Your task to perform on an android device: turn off picture-in-picture Image 0: 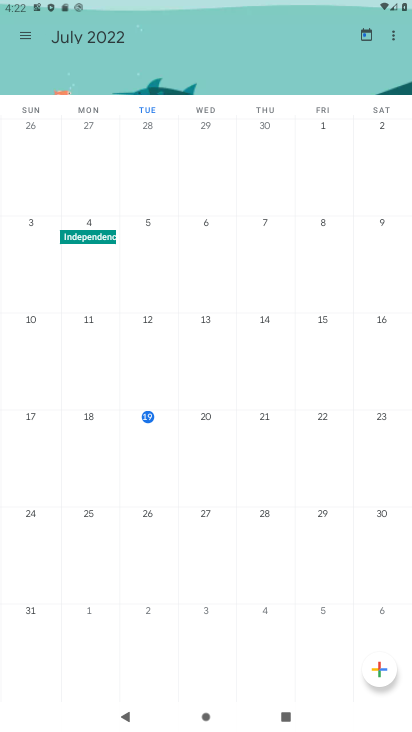
Step 0: press home button
Your task to perform on an android device: turn off picture-in-picture Image 1: 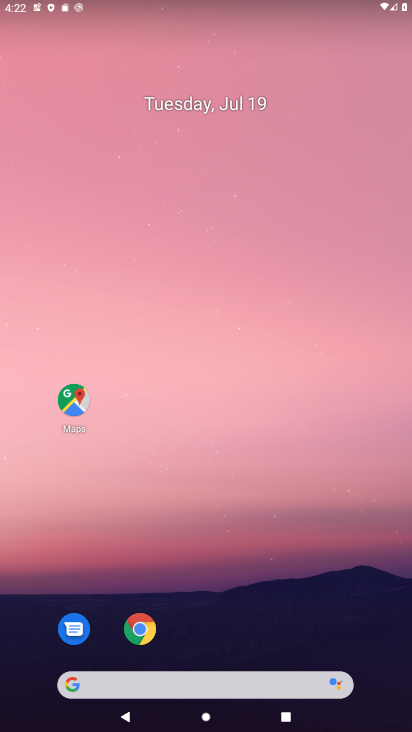
Step 1: click (136, 630)
Your task to perform on an android device: turn off picture-in-picture Image 2: 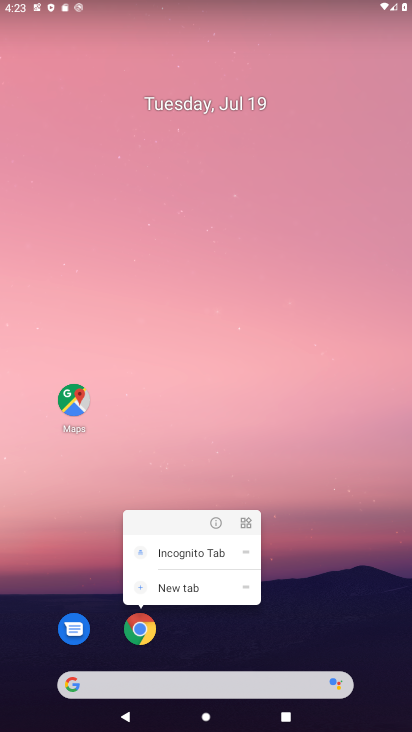
Step 2: click (223, 516)
Your task to perform on an android device: turn off picture-in-picture Image 3: 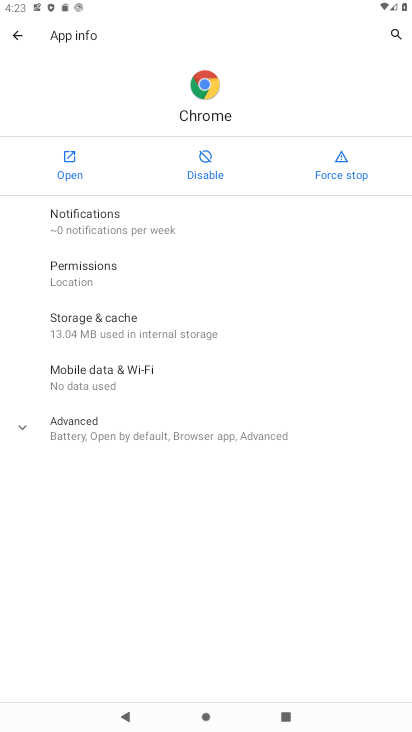
Step 3: click (86, 427)
Your task to perform on an android device: turn off picture-in-picture Image 4: 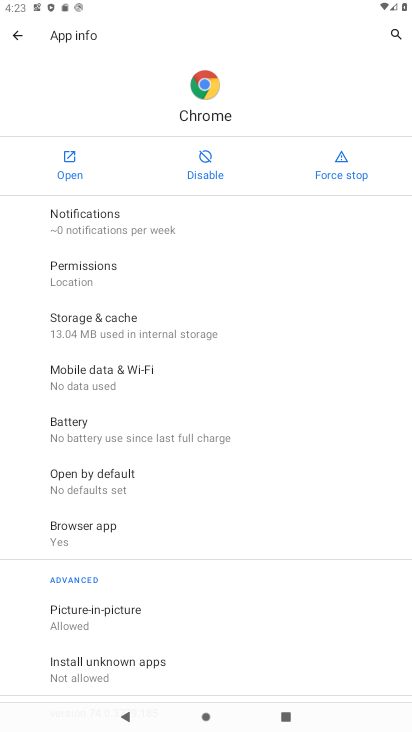
Step 4: click (84, 622)
Your task to perform on an android device: turn off picture-in-picture Image 5: 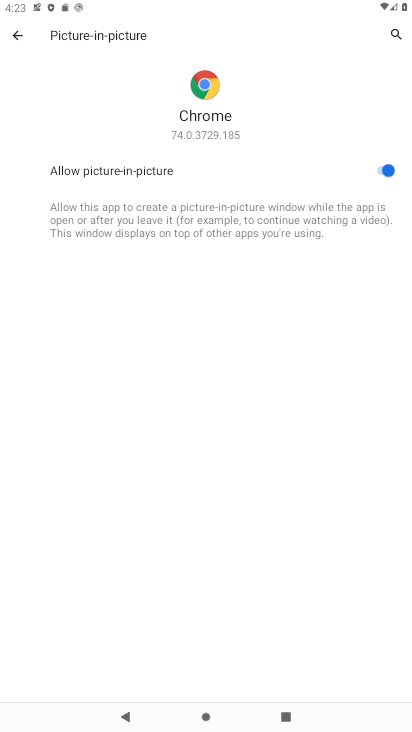
Step 5: click (381, 170)
Your task to perform on an android device: turn off picture-in-picture Image 6: 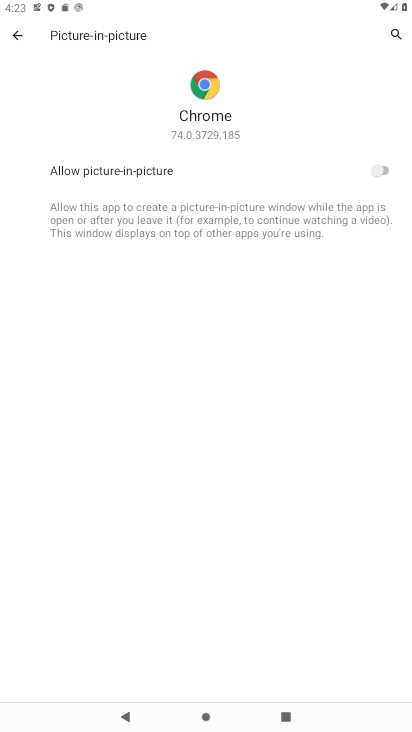
Step 6: task complete